Your task to perform on an android device: open app "YouTube Kids" (install if not already installed) and enter user name: "atmospheric@gmail.com" and password: "raze" Image 0: 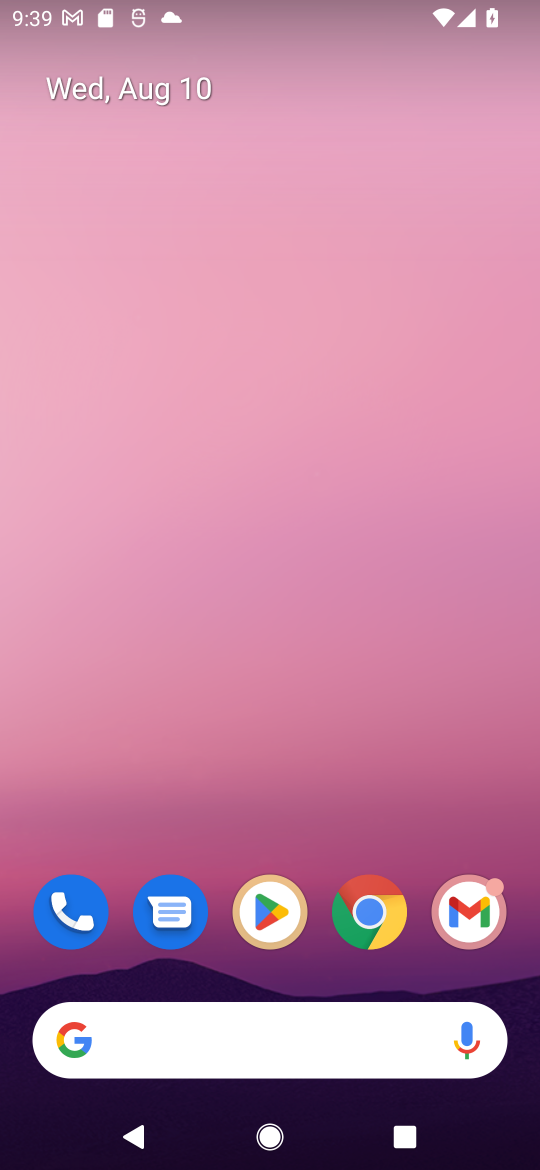
Step 0: click (273, 50)
Your task to perform on an android device: open app "YouTube Kids" (install if not already installed) and enter user name: "atmospheric@gmail.com" and password: "raze" Image 1: 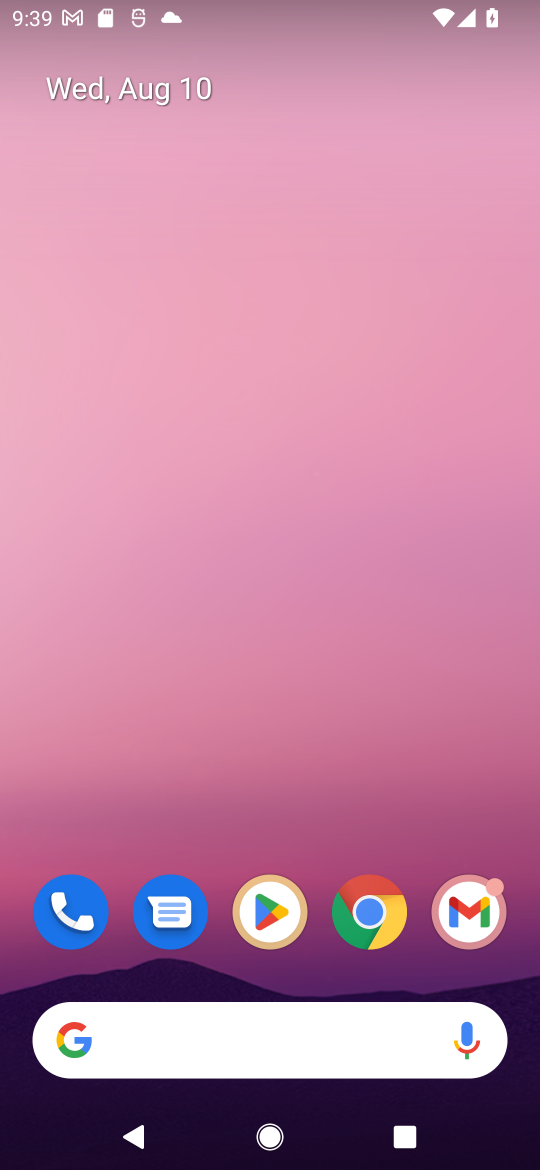
Step 1: drag from (517, 956) to (266, 11)
Your task to perform on an android device: open app "YouTube Kids" (install if not already installed) and enter user name: "atmospheric@gmail.com" and password: "raze" Image 2: 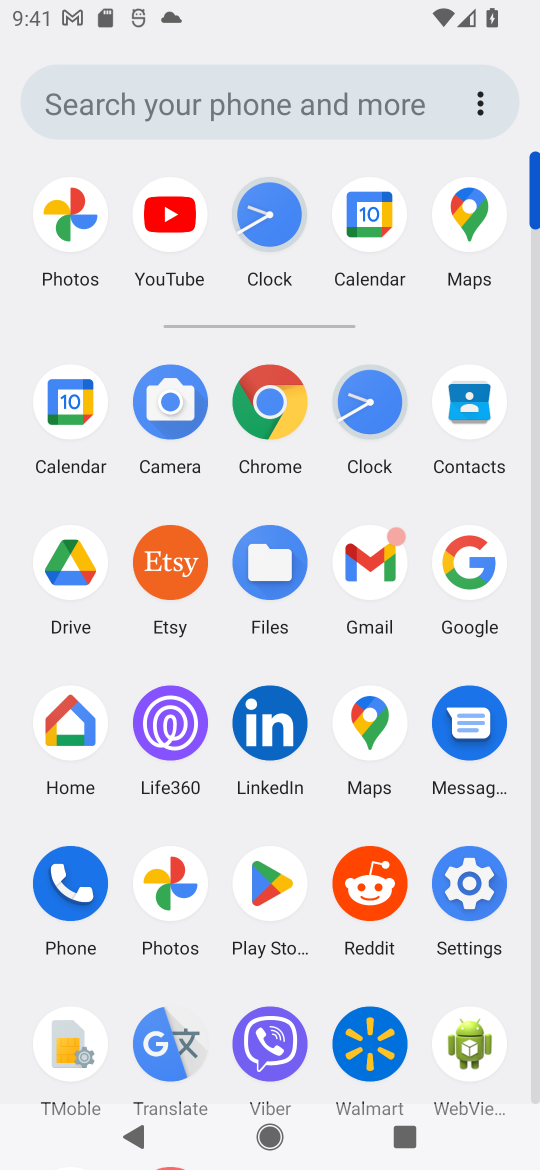
Step 2: click (282, 929)
Your task to perform on an android device: open app "YouTube Kids" (install if not already installed) and enter user name: "atmospheric@gmail.com" and password: "raze" Image 3: 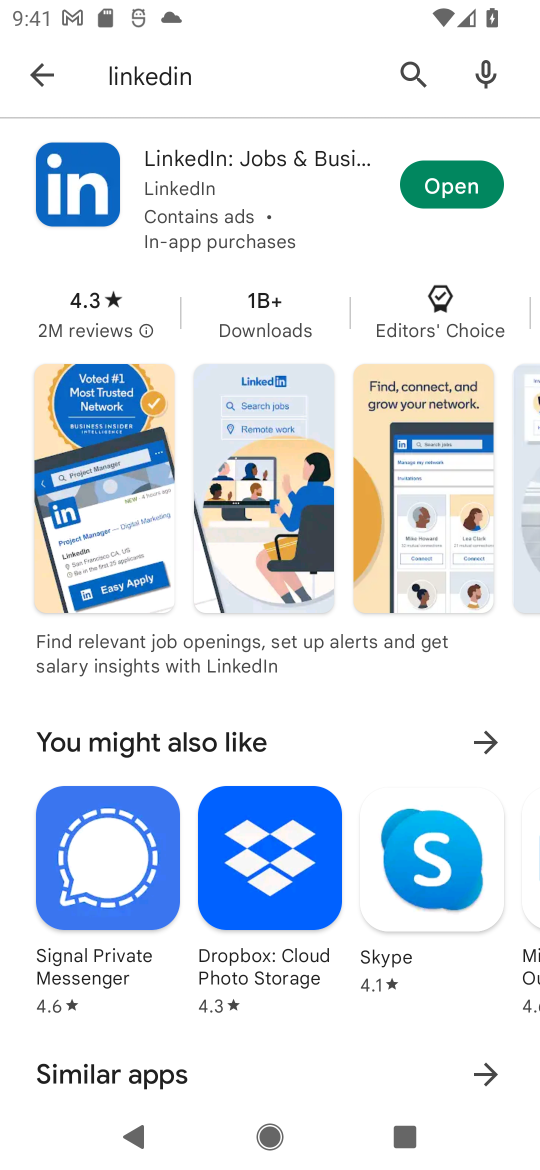
Step 3: press back button
Your task to perform on an android device: open app "YouTube Kids" (install if not already installed) and enter user name: "atmospheric@gmail.com" and password: "raze" Image 4: 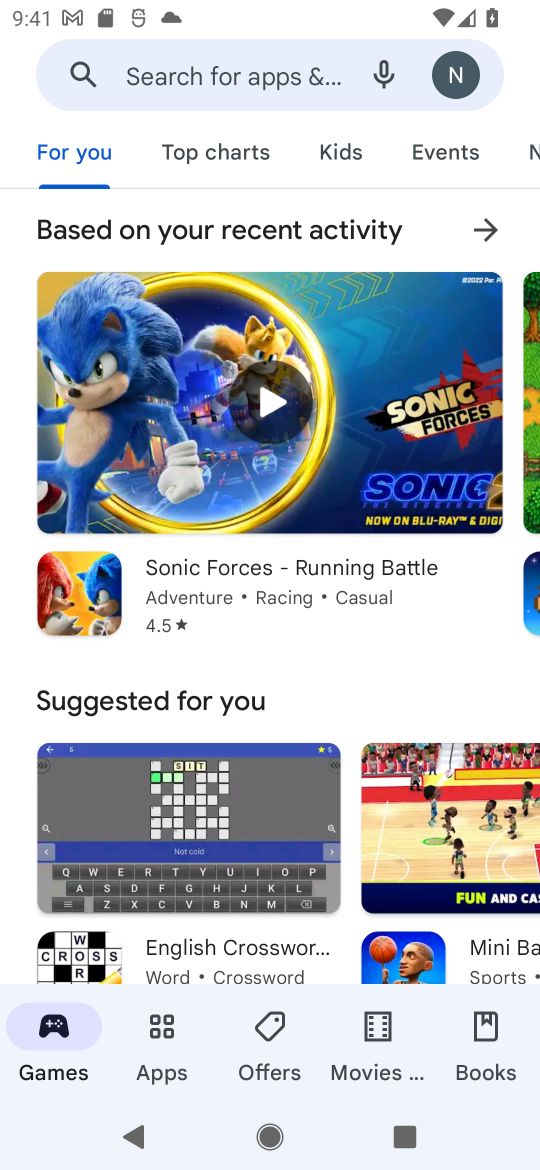
Step 4: click (212, 69)
Your task to perform on an android device: open app "YouTube Kids" (install if not already installed) and enter user name: "atmospheric@gmail.com" and password: "raze" Image 5: 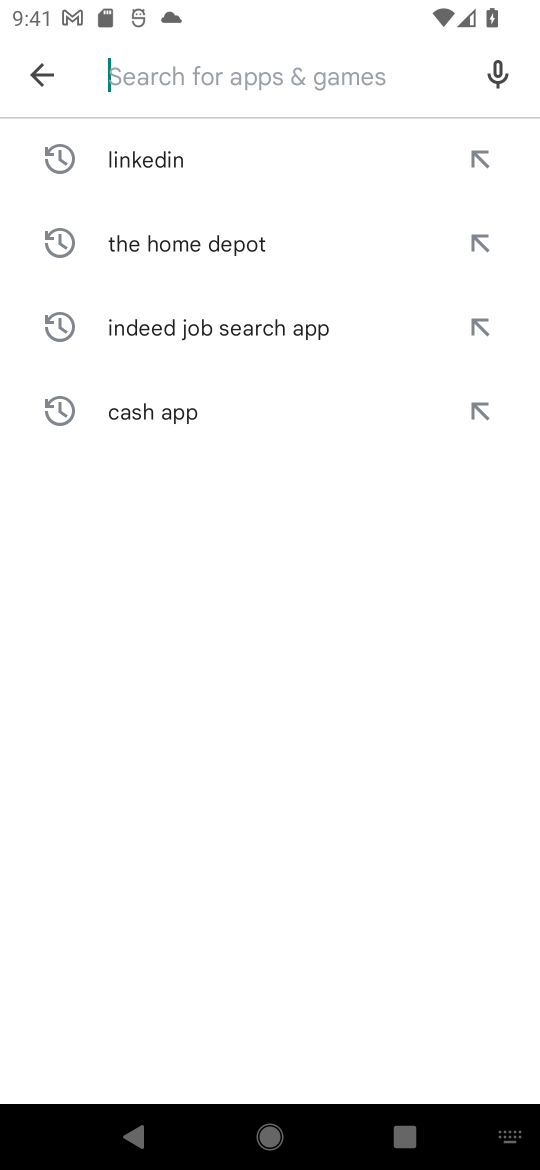
Step 5: type "YouTube Kids"
Your task to perform on an android device: open app "YouTube Kids" (install if not already installed) and enter user name: "atmospheric@gmail.com" and password: "raze" Image 6: 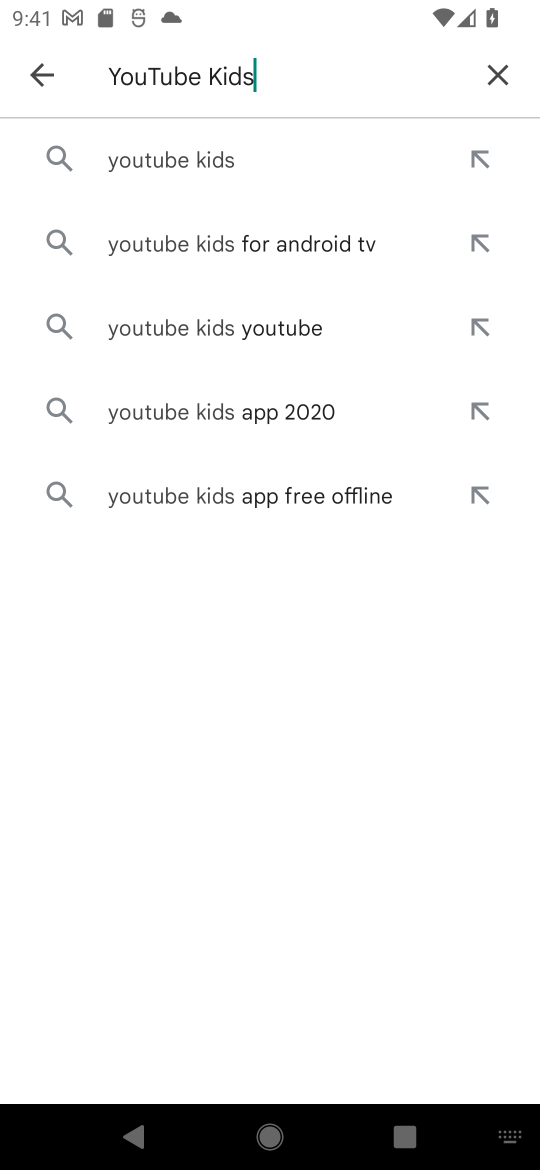
Step 6: click (205, 157)
Your task to perform on an android device: open app "YouTube Kids" (install if not already installed) and enter user name: "atmospheric@gmail.com" and password: "raze" Image 7: 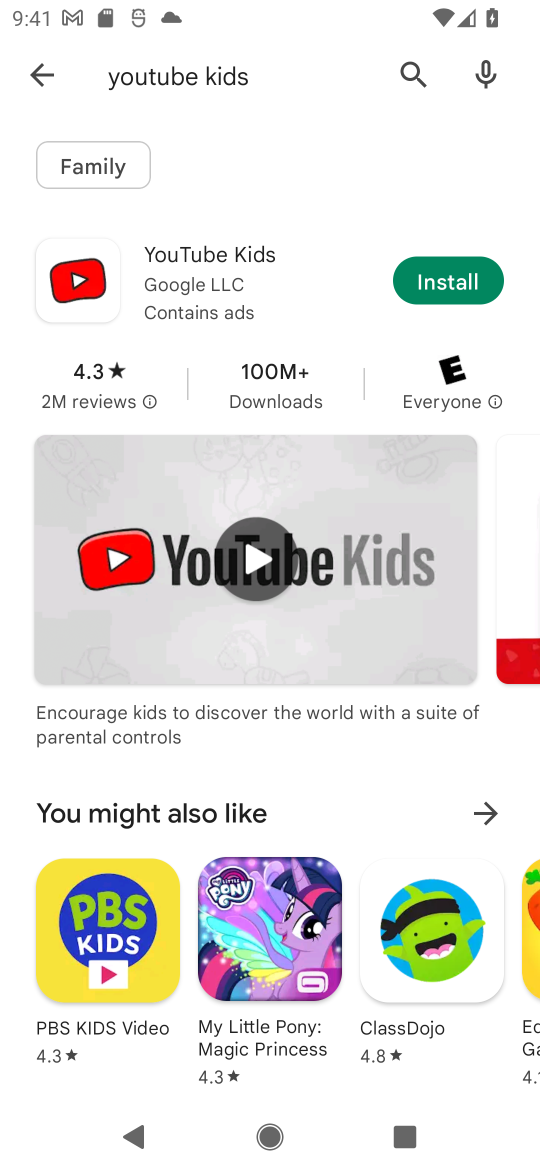
Step 7: task complete